Your task to perform on an android device: add a contact in the contacts app Image 0: 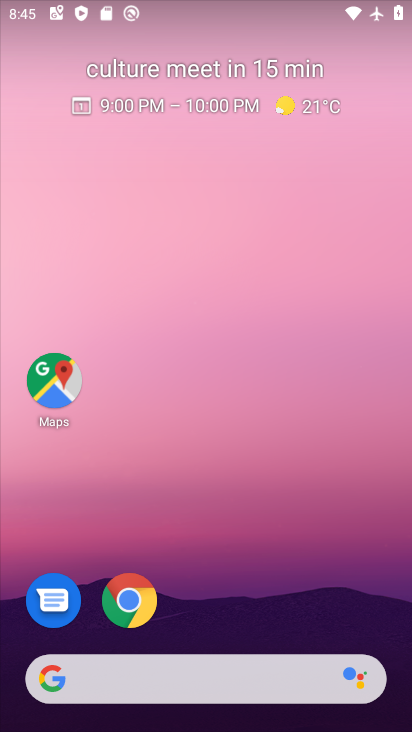
Step 0: drag from (371, 619) to (261, 80)
Your task to perform on an android device: add a contact in the contacts app Image 1: 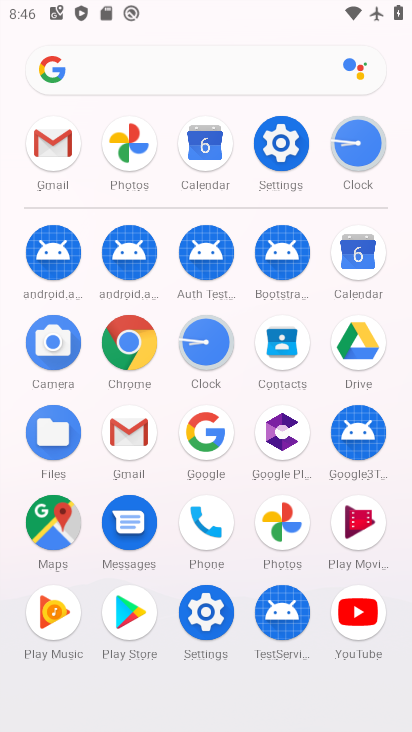
Step 1: click (280, 342)
Your task to perform on an android device: add a contact in the contacts app Image 2: 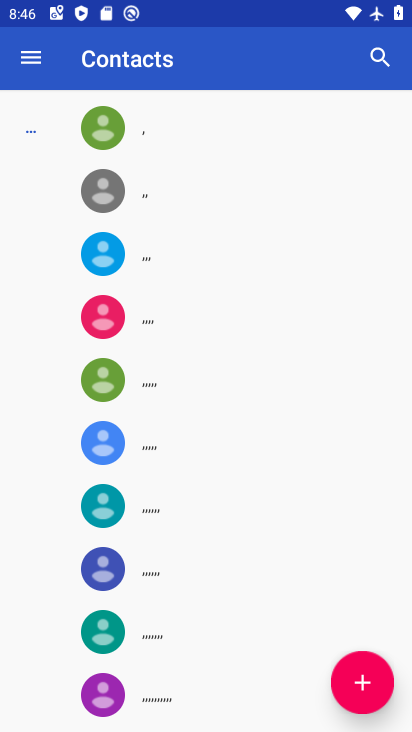
Step 2: click (358, 678)
Your task to perform on an android device: add a contact in the contacts app Image 3: 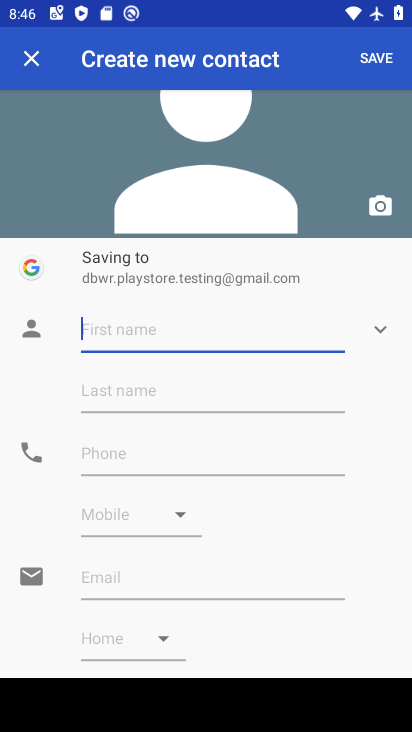
Step 3: type "gghghbn"
Your task to perform on an android device: add a contact in the contacts app Image 4: 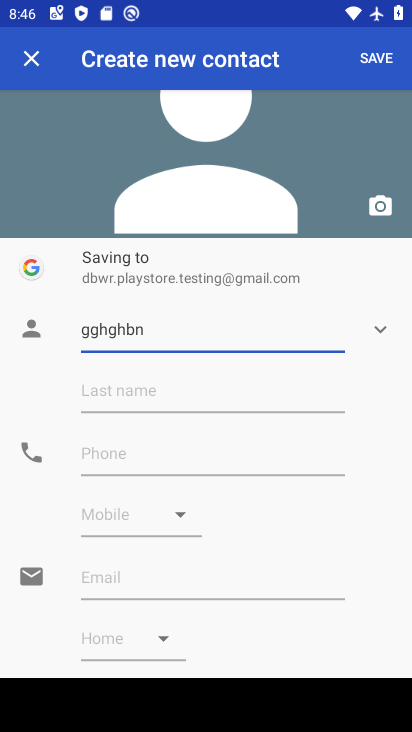
Step 4: click (130, 467)
Your task to perform on an android device: add a contact in the contacts app Image 5: 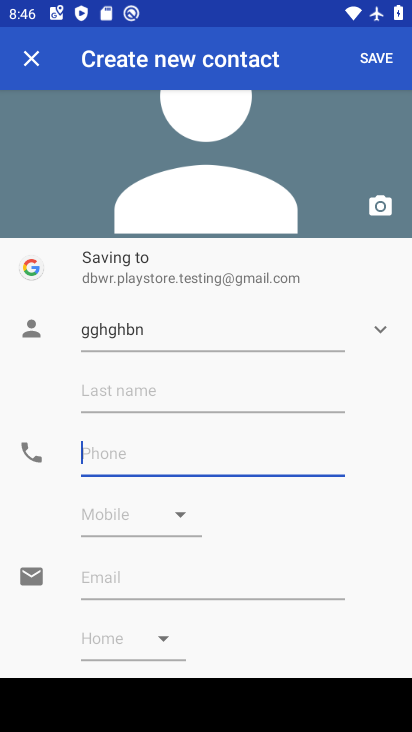
Step 5: type "poiuuu0897564"
Your task to perform on an android device: add a contact in the contacts app Image 6: 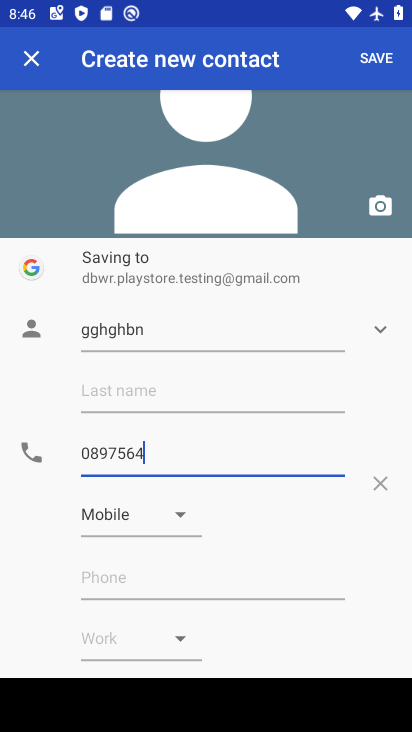
Step 6: click (180, 514)
Your task to perform on an android device: add a contact in the contacts app Image 7: 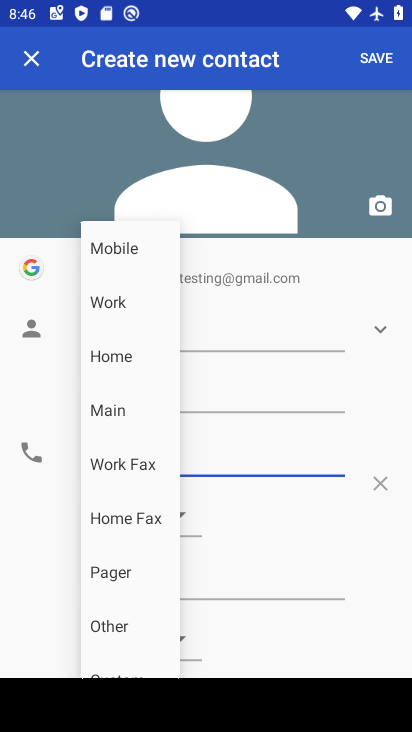
Step 7: click (112, 301)
Your task to perform on an android device: add a contact in the contacts app Image 8: 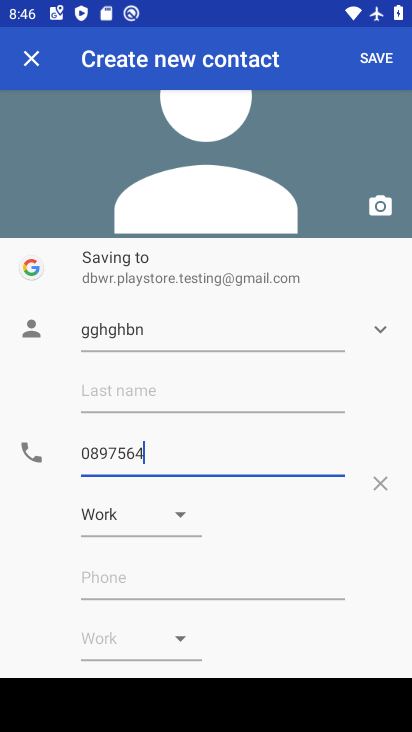
Step 8: click (379, 58)
Your task to perform on an android device: add a contact in the contacts app Image 9: 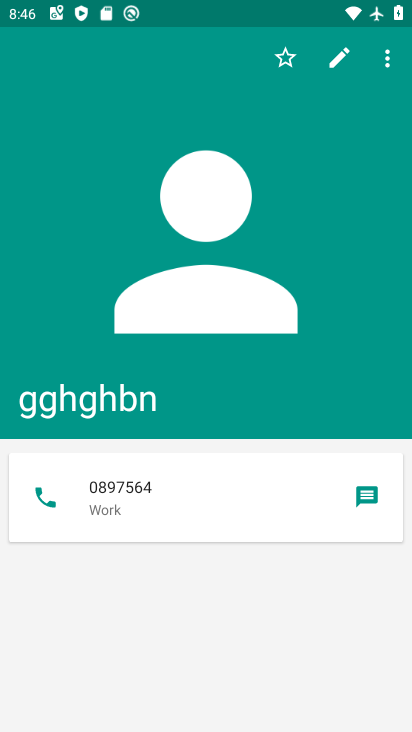
Step 9: task complete